Your task to perform on an android device: Open Wikipedia Image 0: 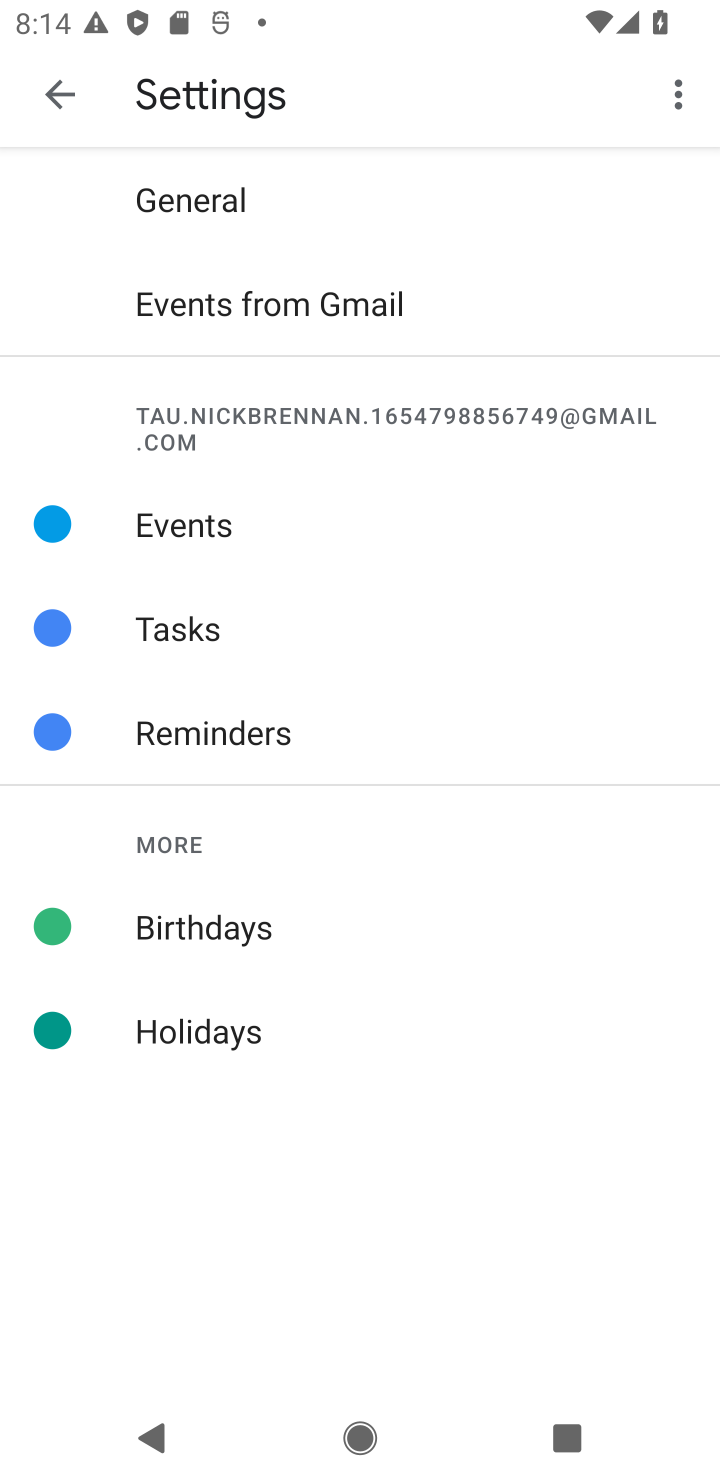
Step 0: press home button
Your task to perform on an android device: Open Wikipedia Image 1: 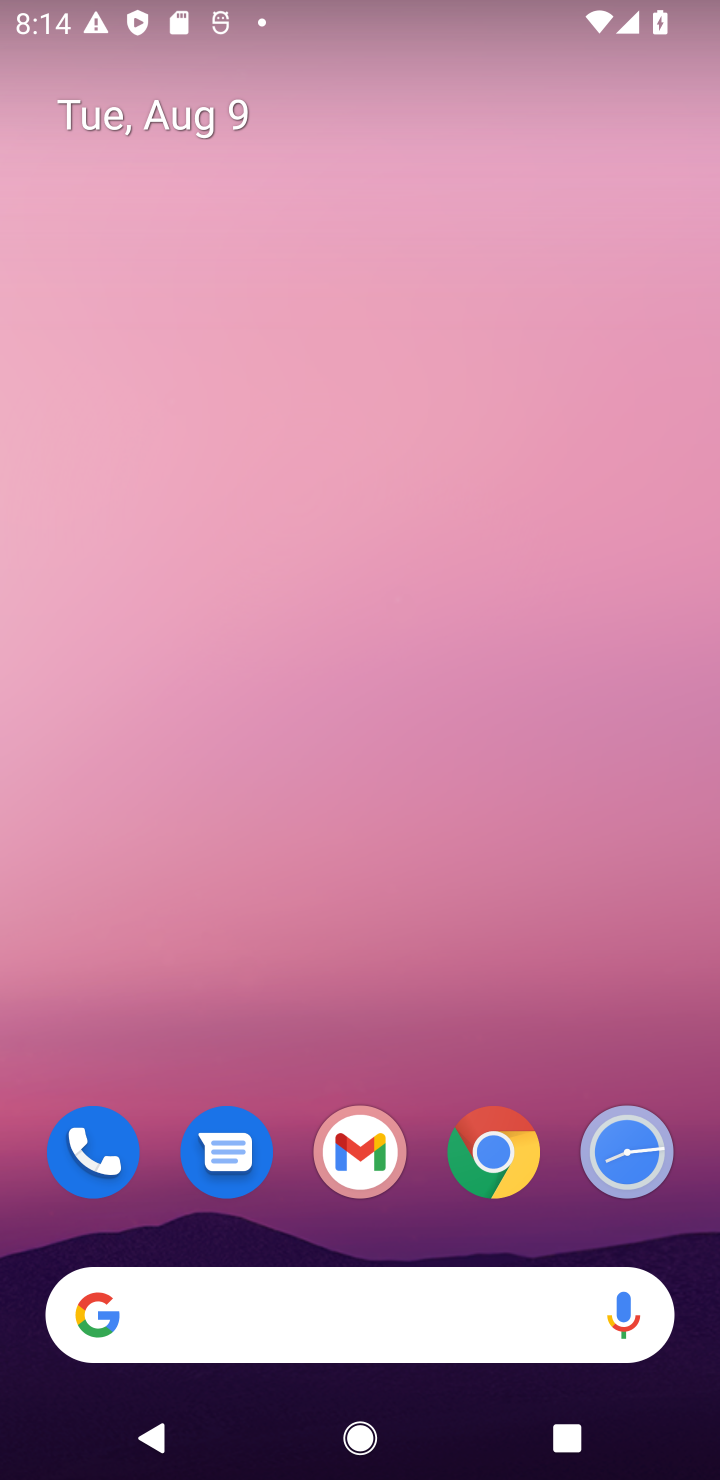
Step 1: click (395, 1285)
Your task to perform on an android device: Open Wikipedia Image 2: 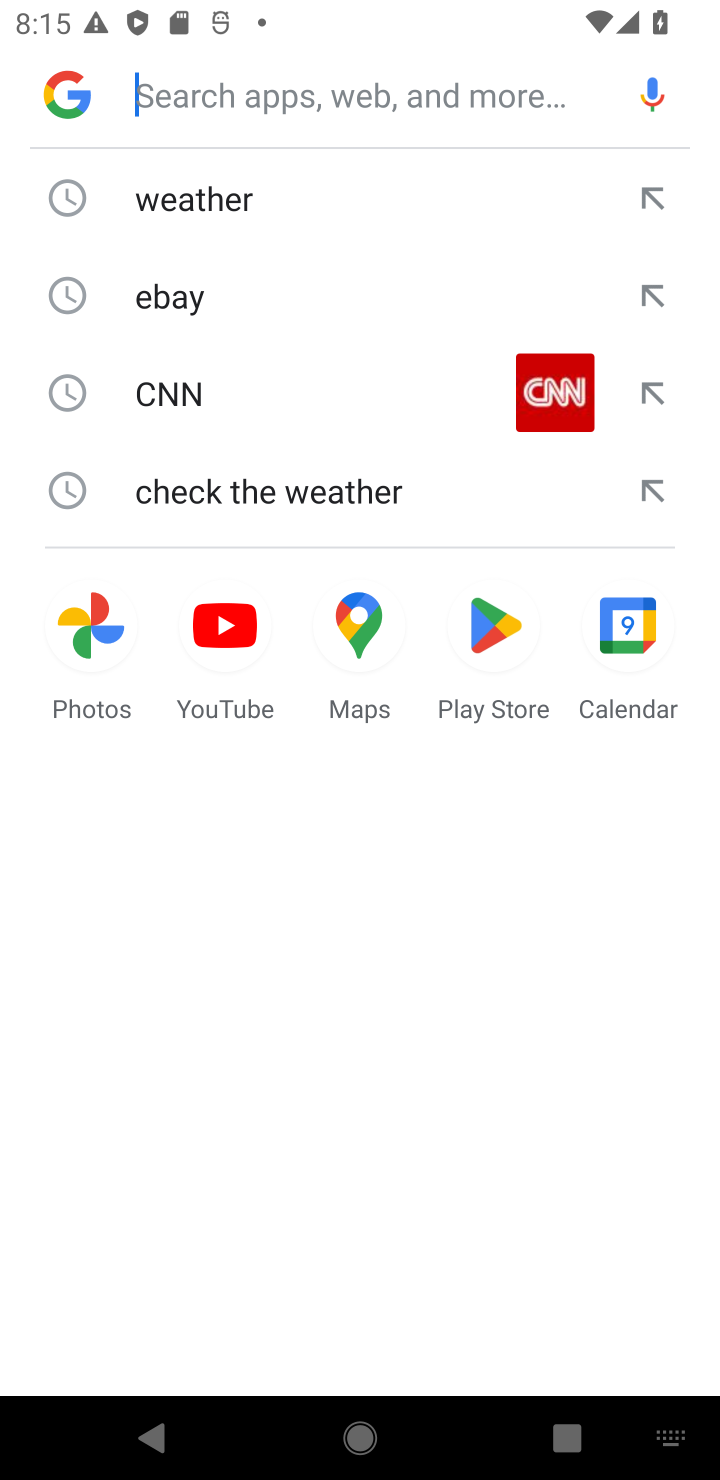
Step 2: type "wikipedla"
Your task to perform on an android device: Open Wikipedia Image 3: 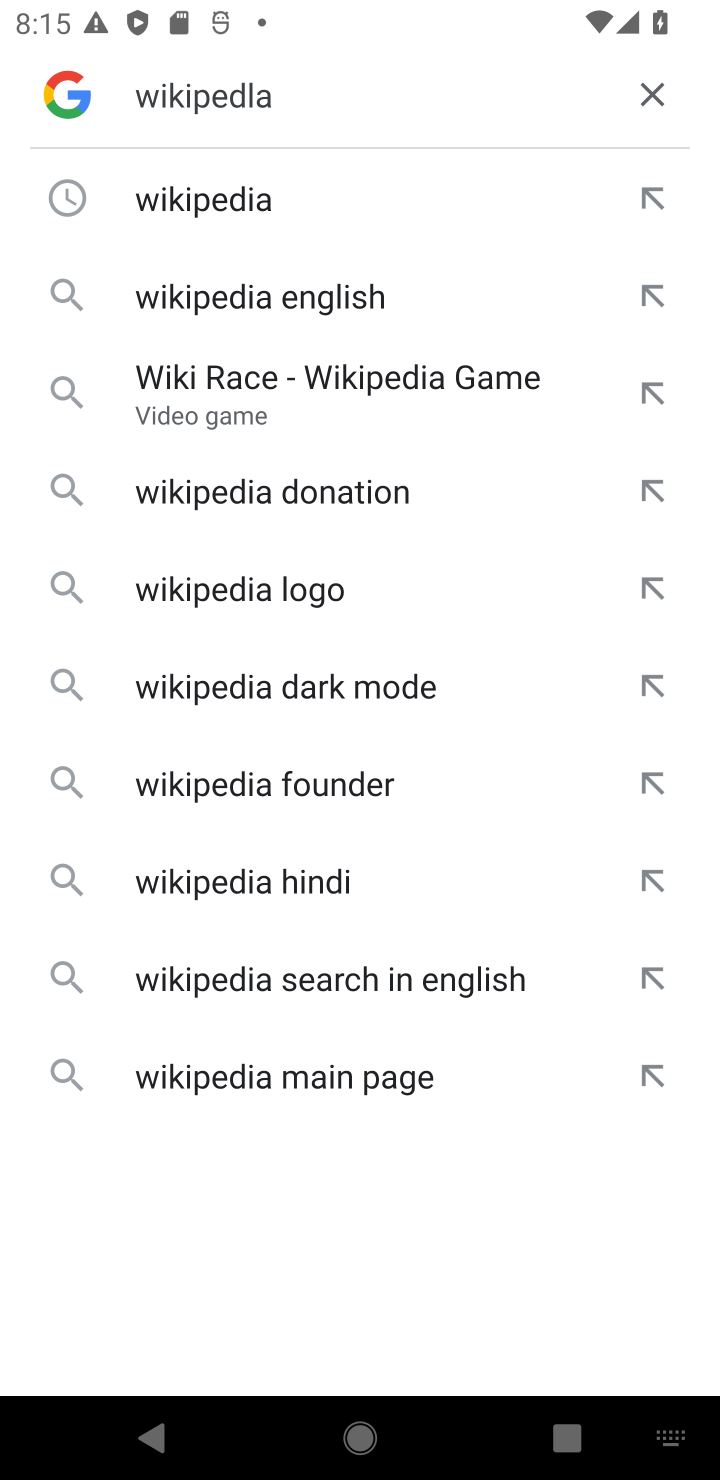
Step 3: click (307, 200)
Your task to perform on an android device: Open Wikipedia Image 4: 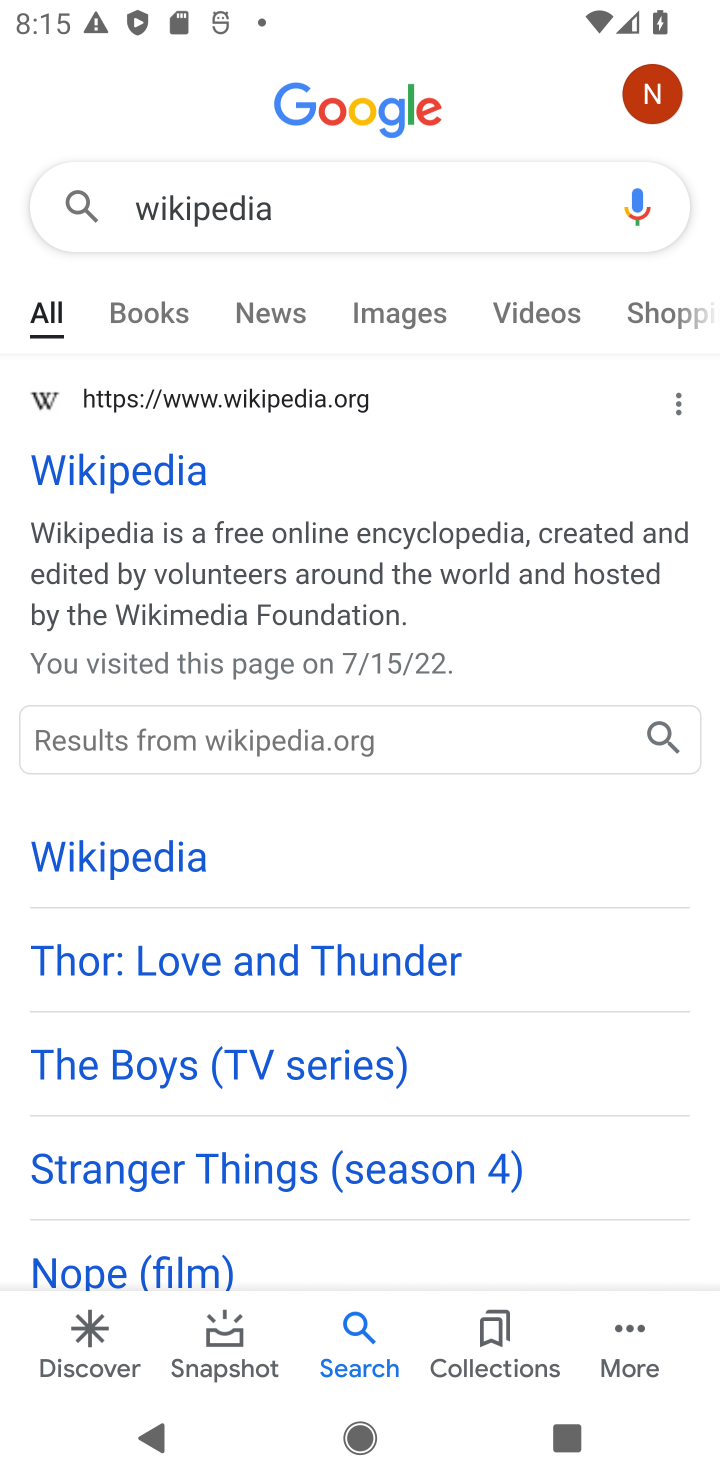
Step 4: click (131, 499)
Your task to perform on an android device: Open Wikipedia Image 5: 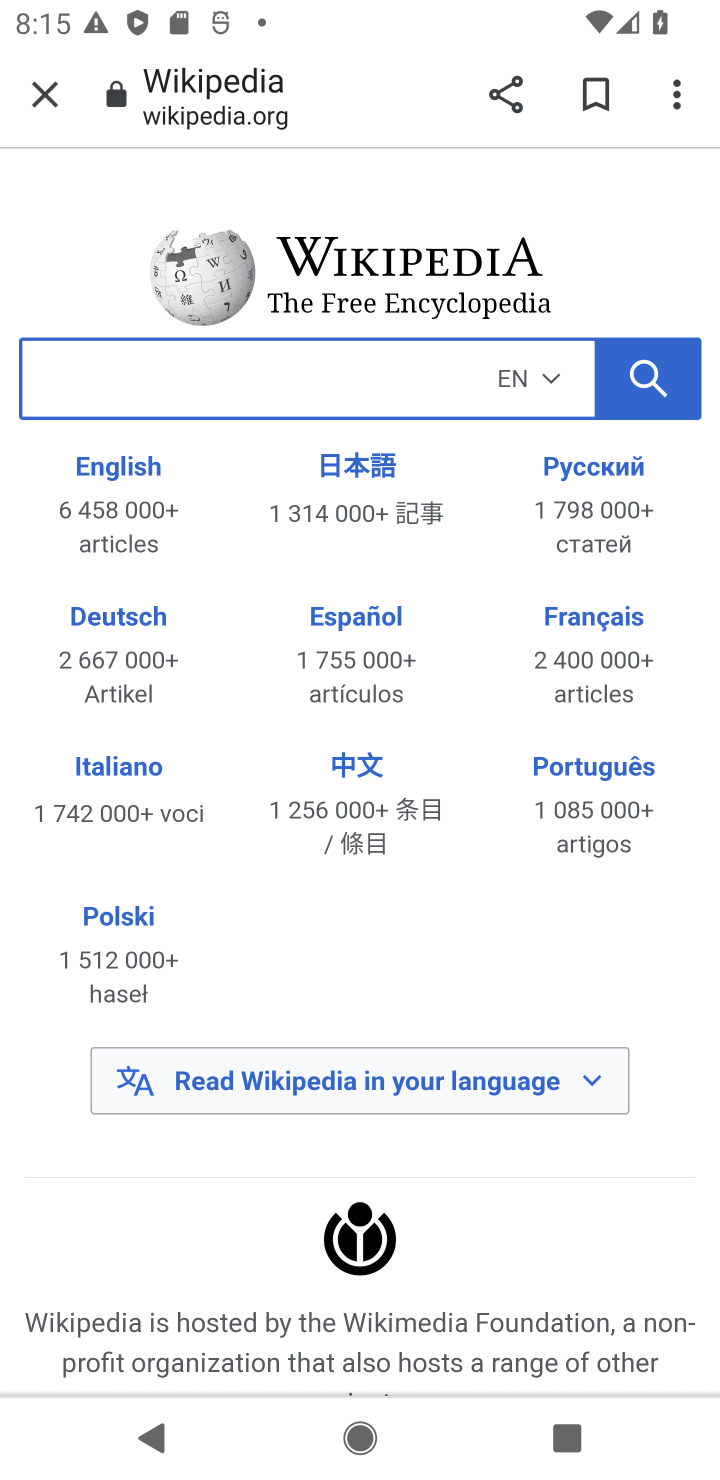
Step 5: task complete